Your task to perform on an android device: Go to notification settings Image 0: 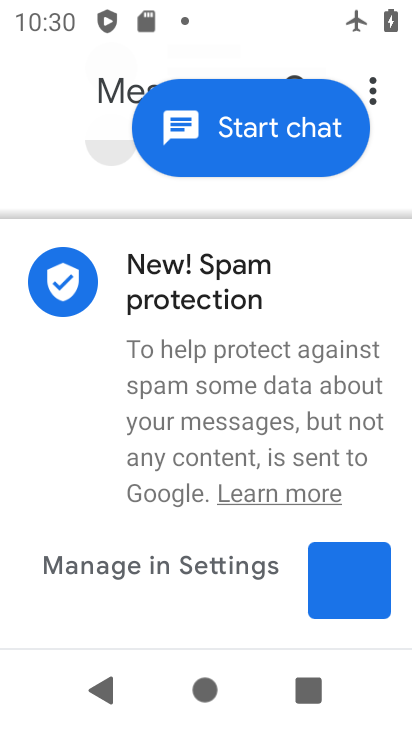
Step 0: press home button
Your task to perform on an android device: Go to notification settings Image 1: 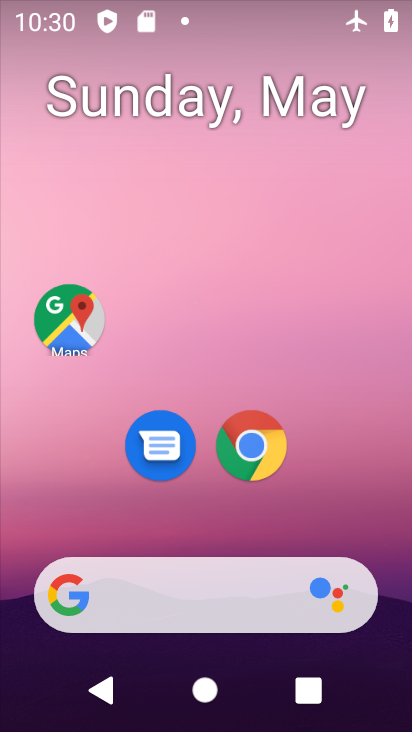
Step 1: drag from (189, 536) to (296, 152)
Your task to perform on an android device: Go to notification settings Image 2: 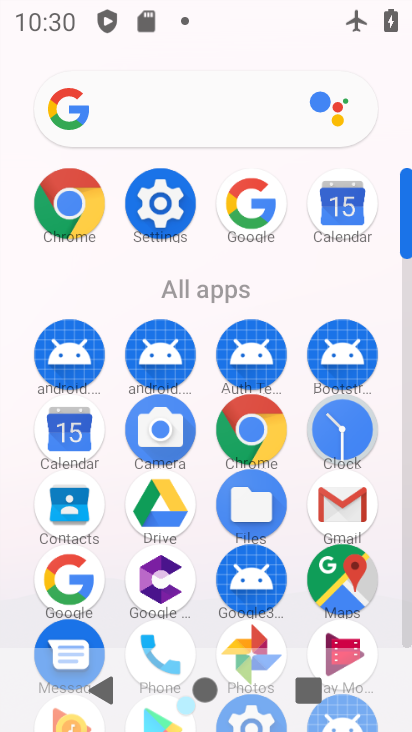
Step 2: click (163, 203)
Your task to perform on an android device: Go to notification settings Image 3: 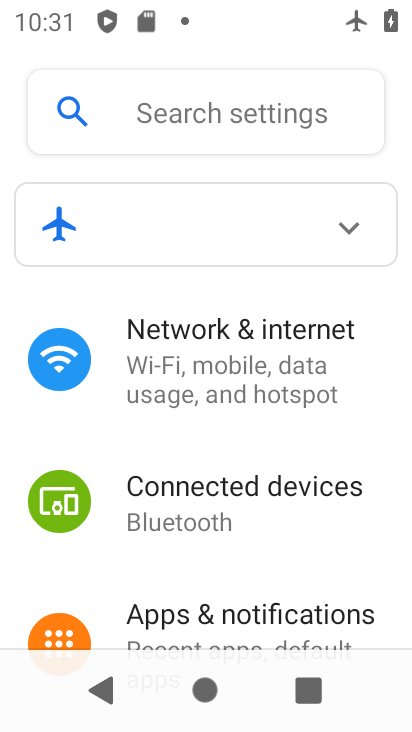
Step 3: click (244, 621)
Your task to perform on an android device: Go to notification settings Image 4: 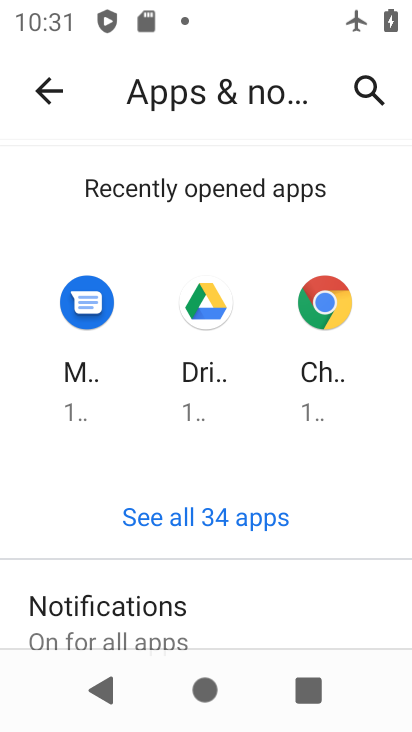
Step 4: task complete